Your task to perform on an android device: turn on the 24-hour format for clock Image 0: 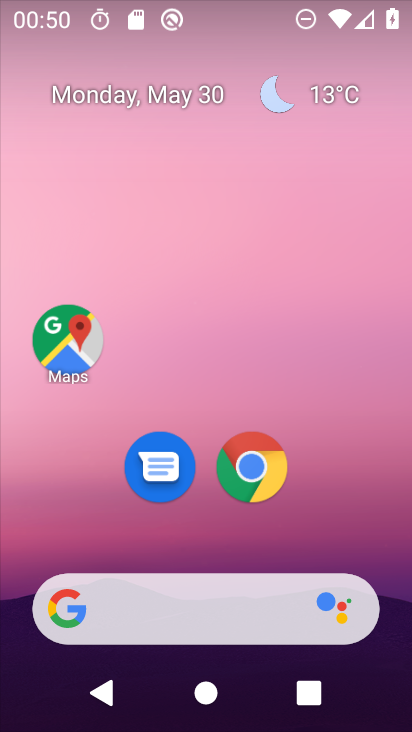
Step 0: drag from (216, 549) to (200, 253)
Your task to perform on an android device: turn on the 24-hour format for clock Image 1: 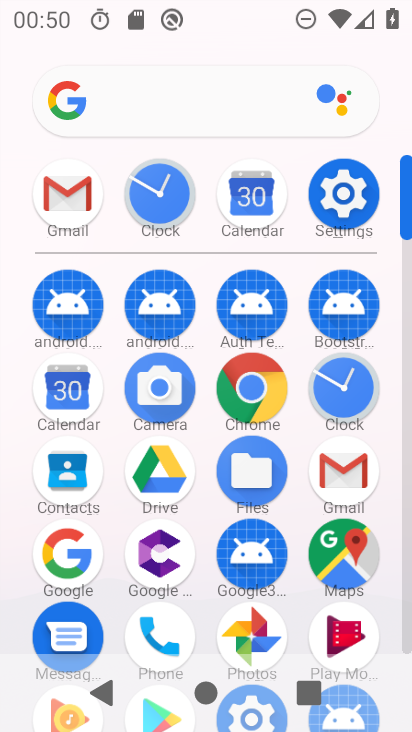
Step 1: click (348, 373)
Your task to perform on an android device: turn on the 24-hour format for clock Image 2: 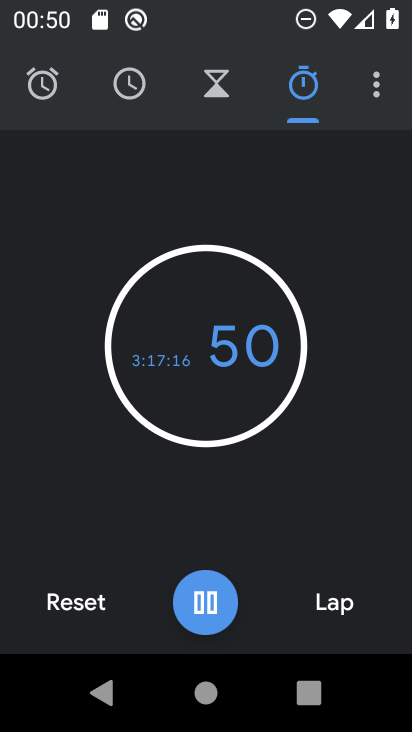
Step 2: click (376, 87)
Your task to perform on an android device: turn on the 24-hour format for clock Image 3: 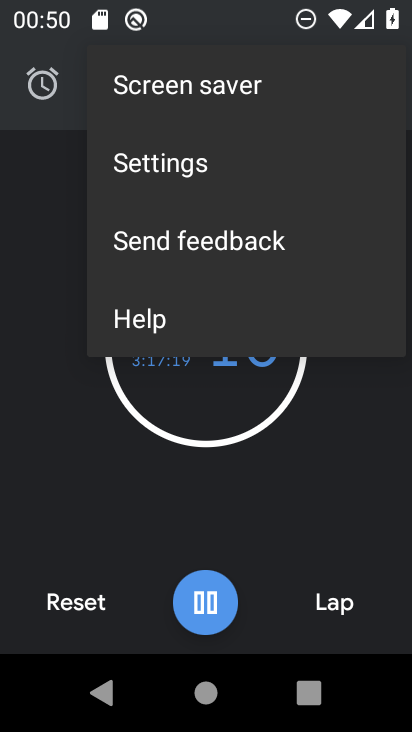
Step 3: click (156, 175)
Your task to perform on an android device: turn on the 24-hour format for clock Image 4: 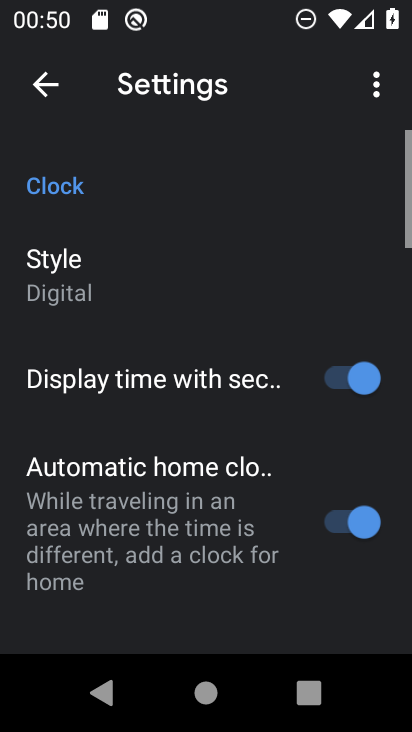
Step 4: drag from (201, 547) to (209, 259)
Your task to perform on an android device: turn on the 24-hour format for clock Image 5: 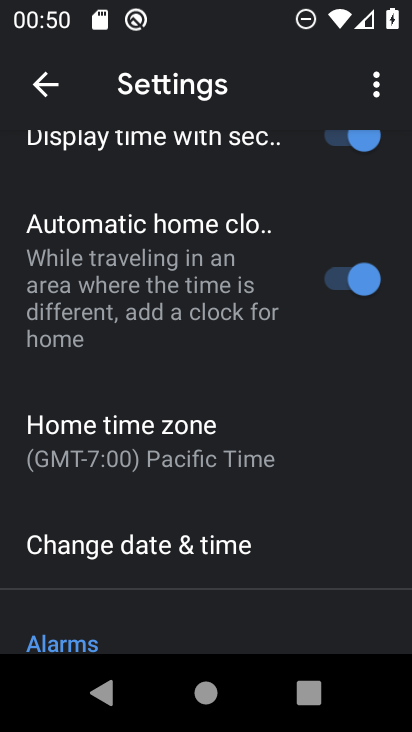
Step 5: click (218, 538)
Your task to perform on an android device: turn on the 24-hour format for clock Image 6: 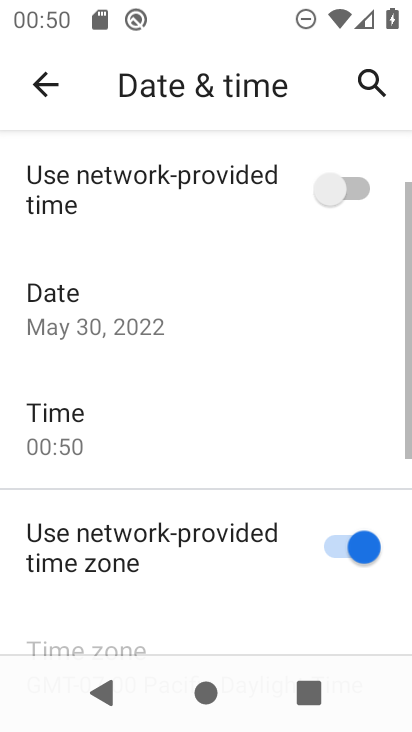
Step 6: task complete